Your task to perform on an android device: Open Maps and search for coffee Image 0: 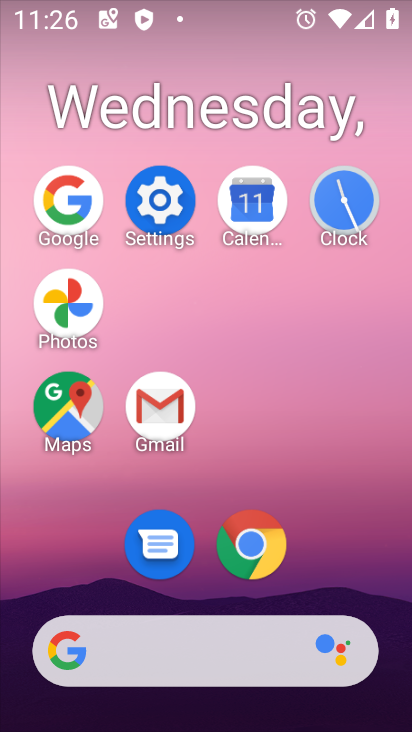
Step 0: click (91, 412)
Your task to perform on an android device: Open Maps and search for coffee Image 1: 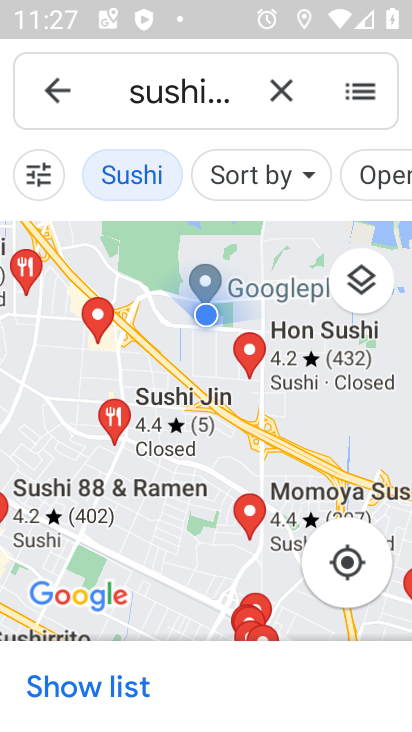
Step 1: click (268, 88)
Your task to perform on an android device: Open Maps and search for coffee Image 2: 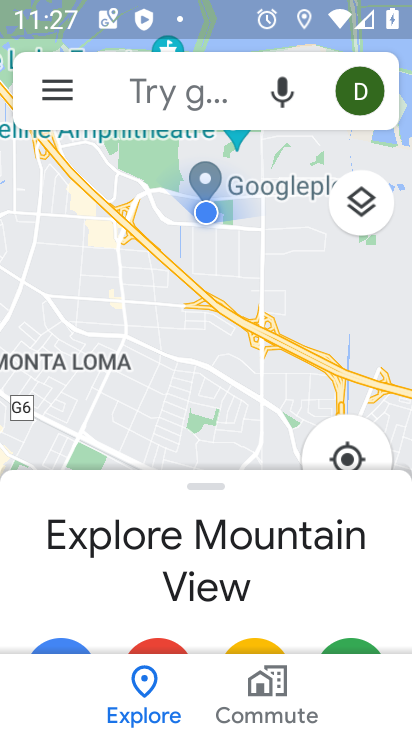
Step 2: click (245, 94)
Your task to perform on an android device: Open Maps and search for coffee Image 3: 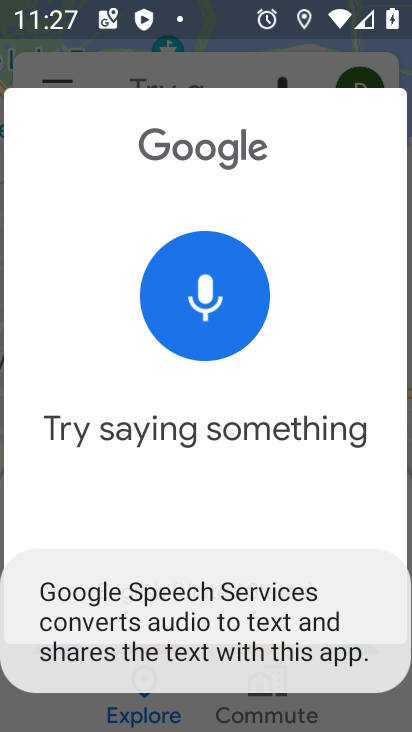
Step 3: click (197, 89)
Your task to perform on an android device: Open Maps and search for coffee Image 4: 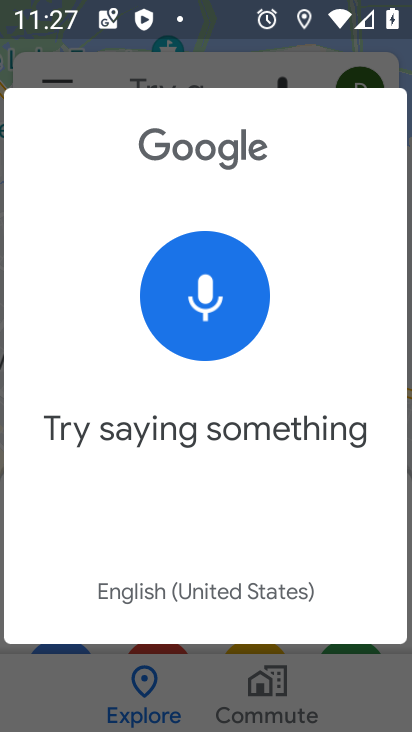
Step 4: click (130, 60)
Your task to perform on an android device: Open Maps and search for coffee Image 5: 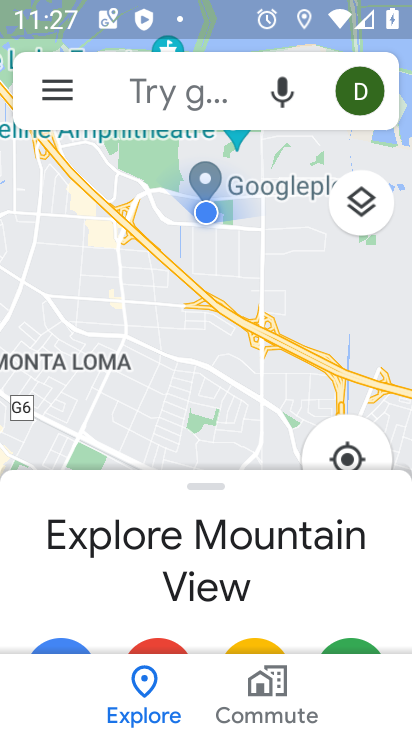
Step 5: click (164, 105)
Your task to perform on an android device: Open Maps and search for coffee Image 6: 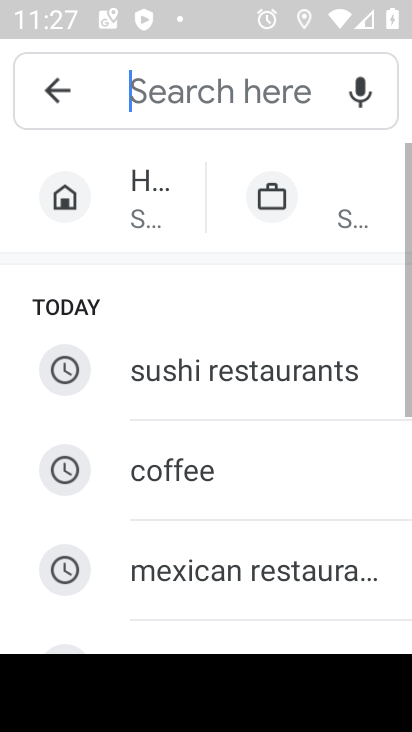
Step 6: click (230, 485)
Your task to perform on an android device: Open Maps and search for coffee Image 7: 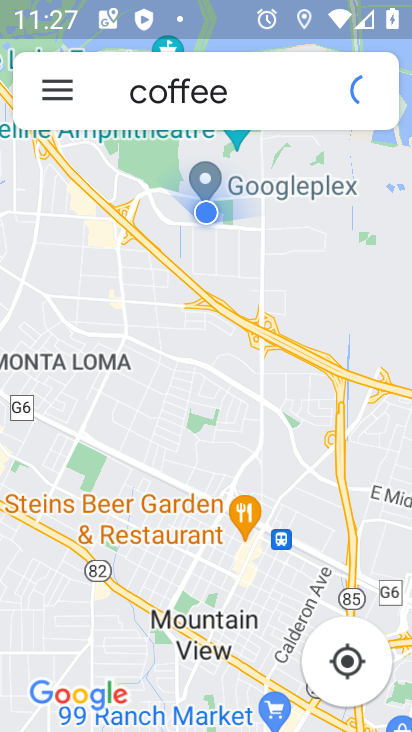
Step 7: task complete